Your task to perform on an android device: Search for the Best selling coffee table on Ikea Image 0: 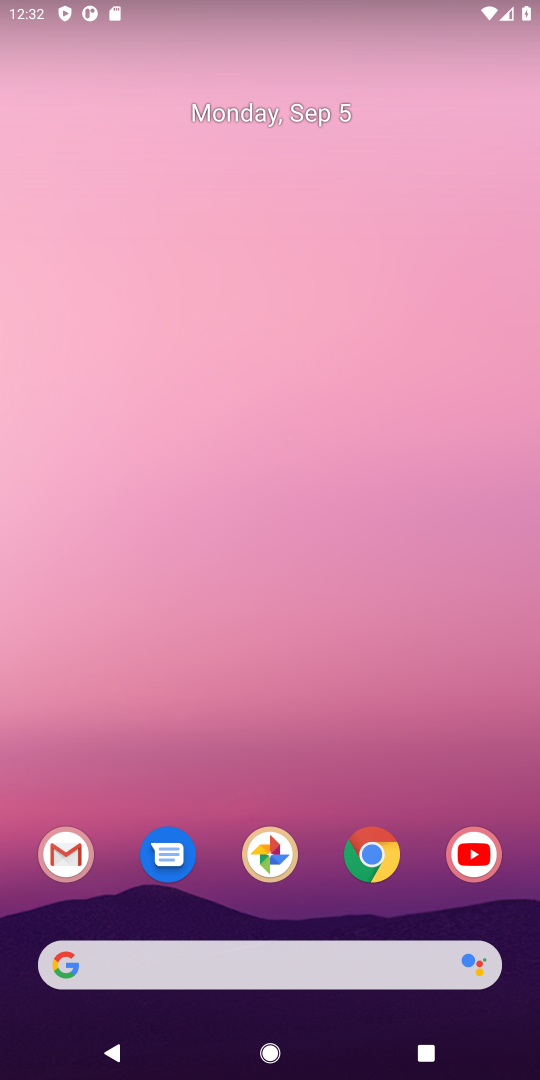
Step 0: click (367, 860)
Your task to perform on an android device: Search for the Best selling coffee table on Ikea Image 1: 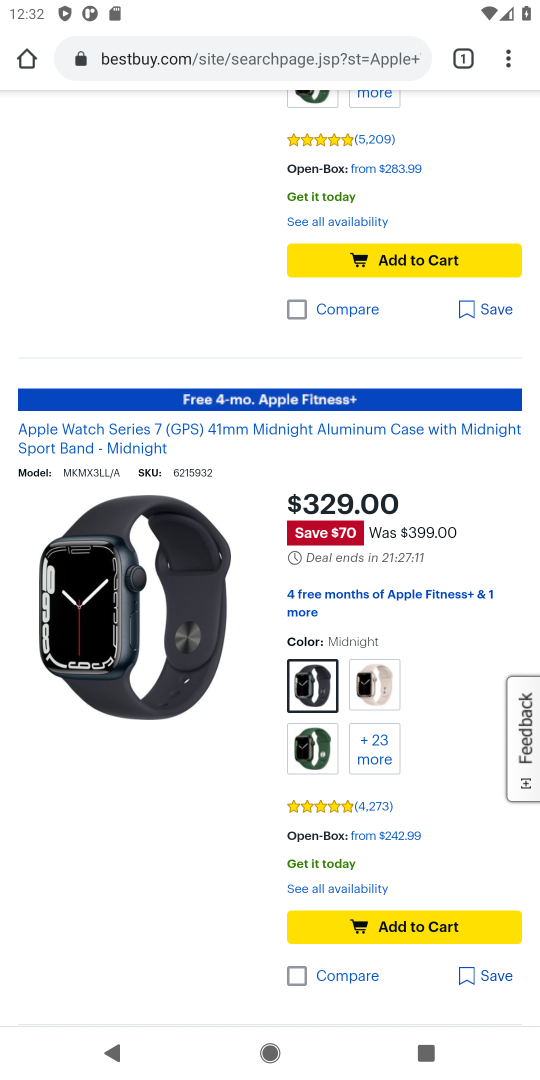
Step 1: click (351, 54)
Your task to perform on an android device: Search for the Best selling coffee table on Ikea Image 2: 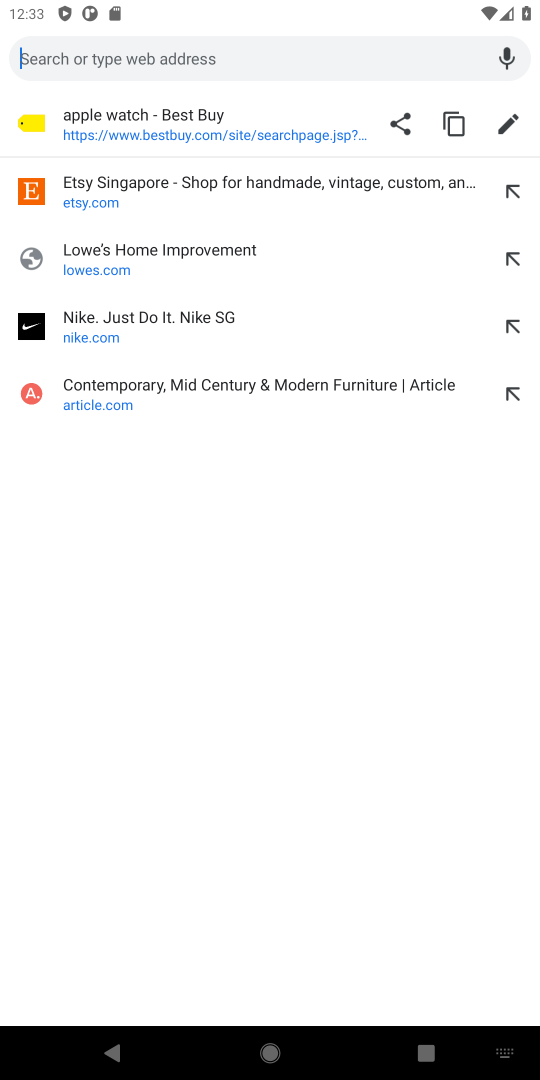
Step 2: type "Ikea"
Your task to perform on an android device: Search for the Best selling coffee table on Ikea Image 3: 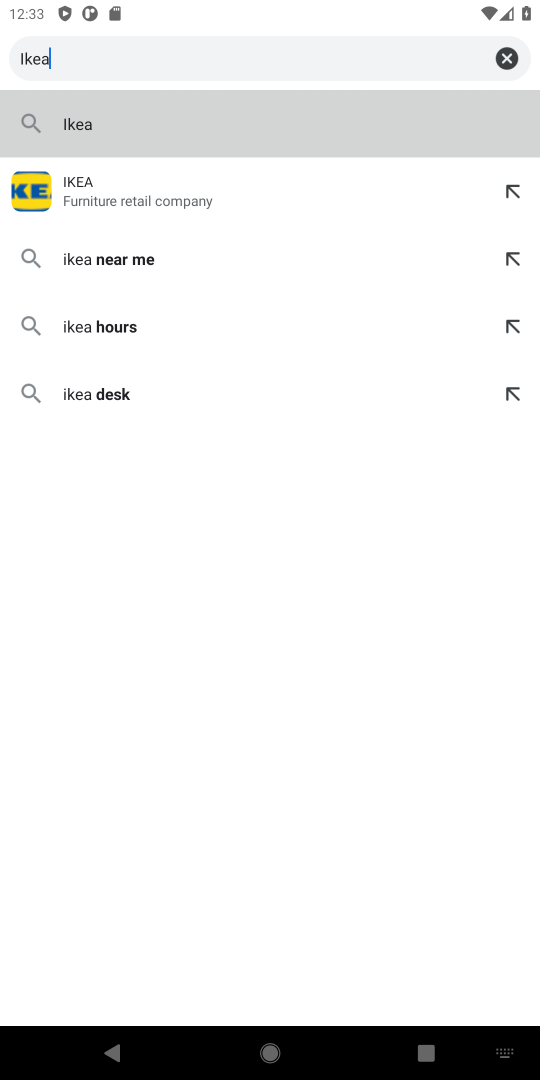
Step 3: press enter
Your task to perform on an android device: Search for the Best selling coffee table on Ikea Image 4: 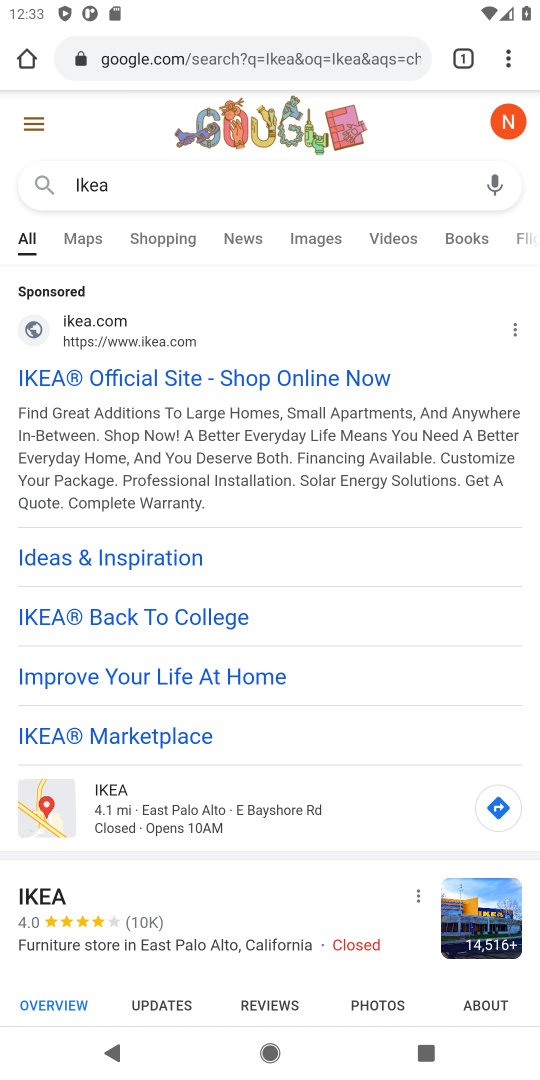
Step 4: click (248, 380)
Your task to perform on an android device: Search for the Best selling coffee table on Ikea Image 5: 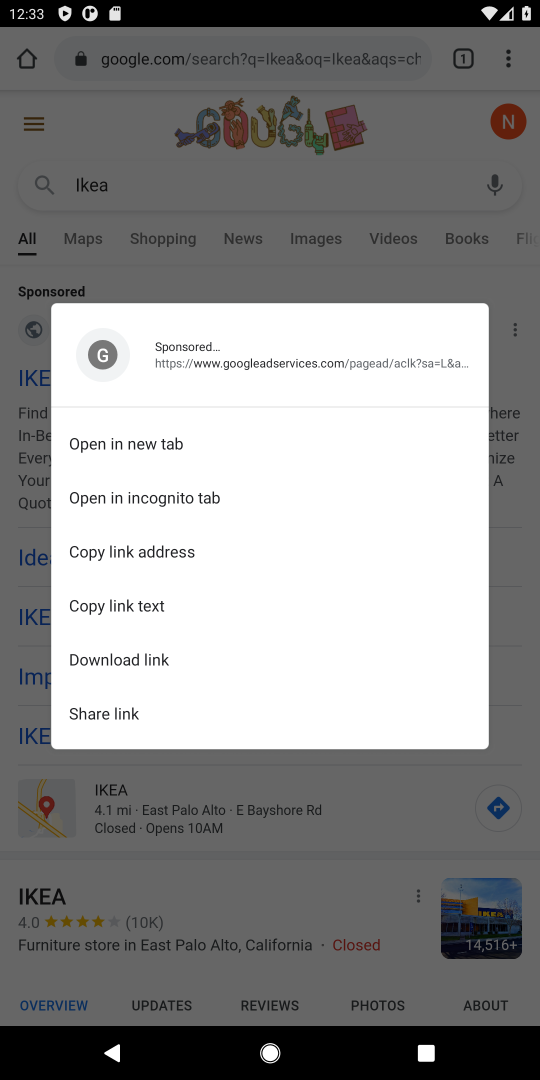
Step 5: click (525, 372)
Your task to perform on an android device: Search for the Best selling coffee table on Ikea Image 6: 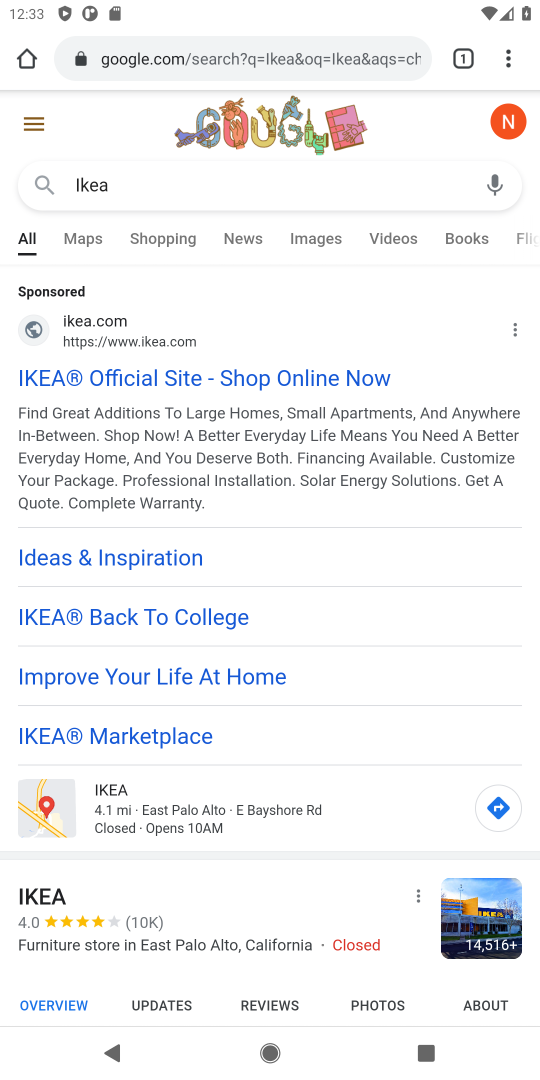
Step 6: click (126, 377)
Your task to perform on an android device: Search for the Best selling coffee table on Ikea Image 7: 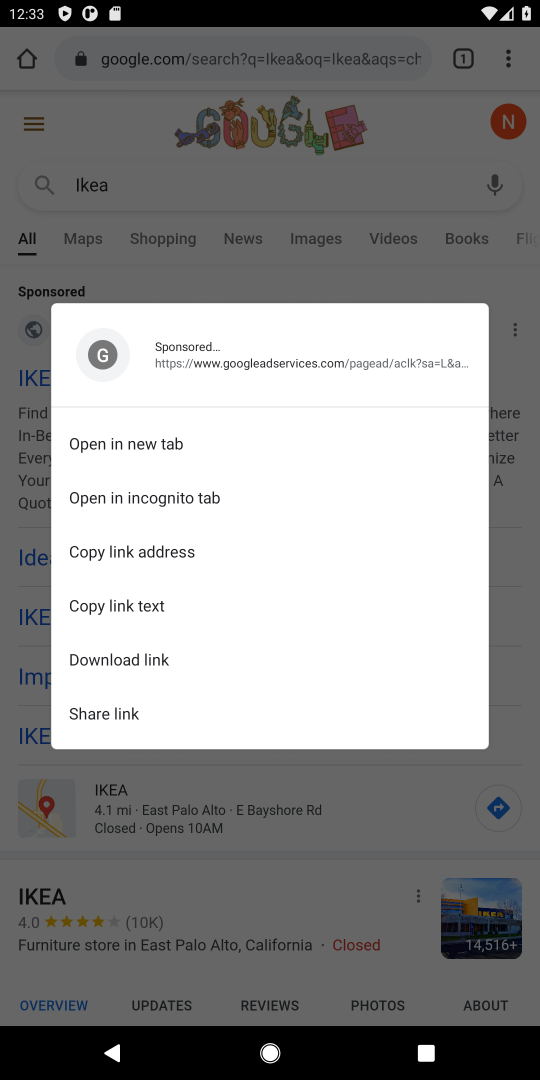
Step 7: click (520, 677)
Your task to perform on an android device: Search for the Best selling coffee table on Ikea Image 8: 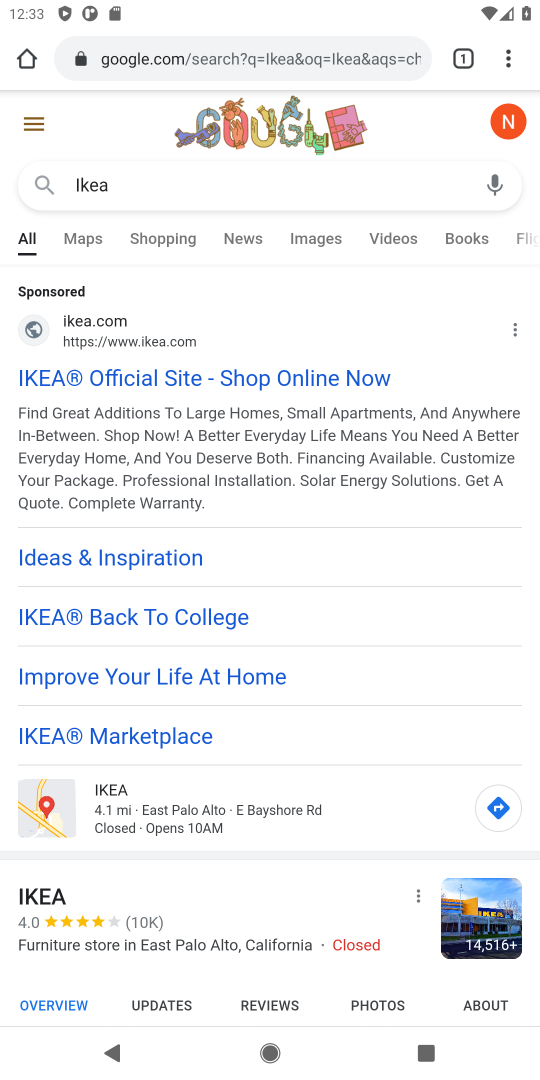
Step 8: click (13, 372)
Your task to perform on an android device: Search for the Best selling coffee table on Ikea Image 9: 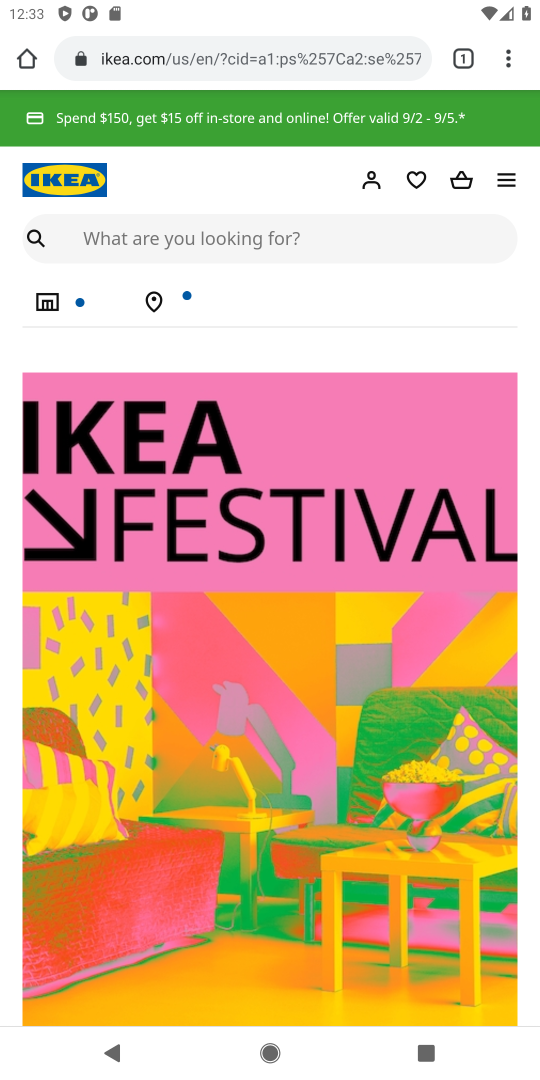
Step 9: click (245, 232)
Your task to perform on an android device: Search for the Best selling coffee table on Ikea Image 10: 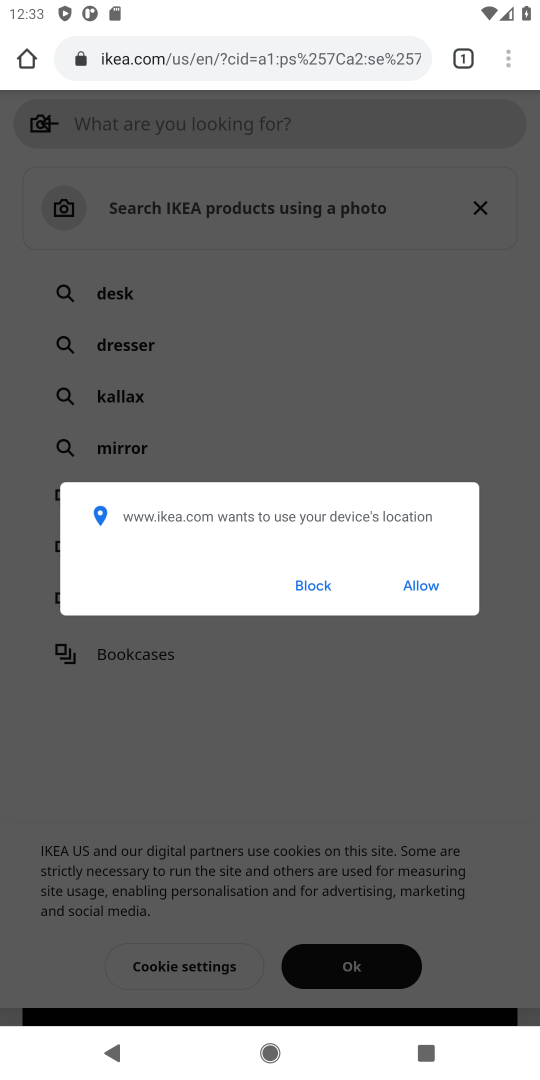
Step 10: click (319, 583)
Your task to perform on an android device: Search for the Best selling coffee table on Ikea Image 11: 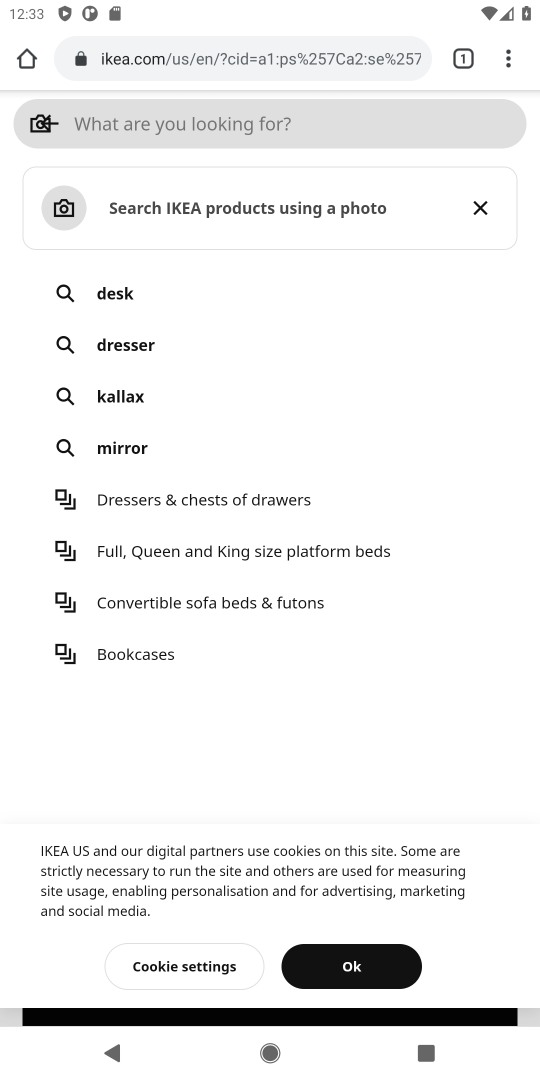
Step 11: type "coffee table"
Your task to perform on an android device: Search for the Best selling coffee table on Ikea Image 12: 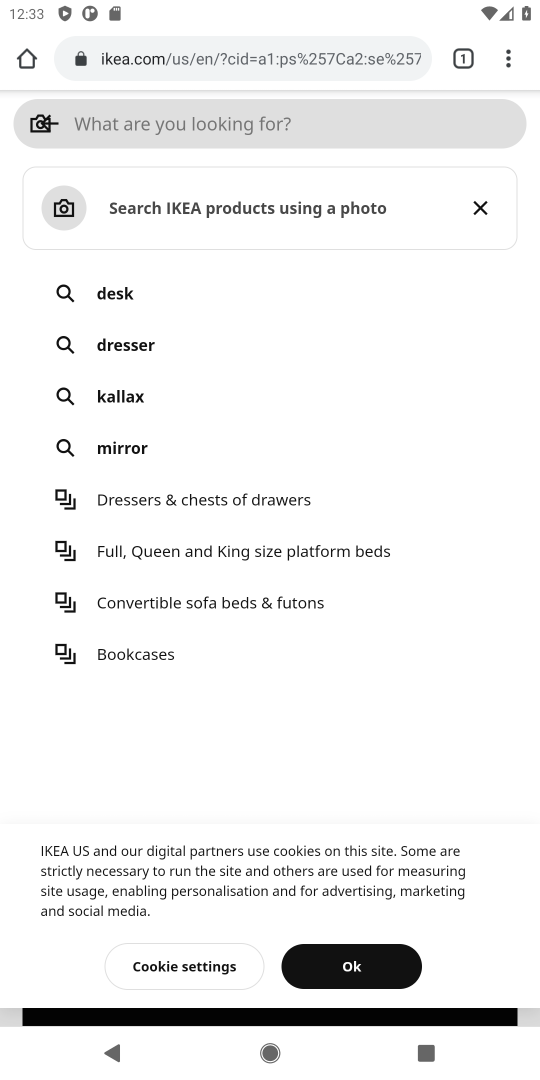
Step 12: press enter
Your task to perform on an android device: Search for the Best selling coffee table on Ikea Image 13: 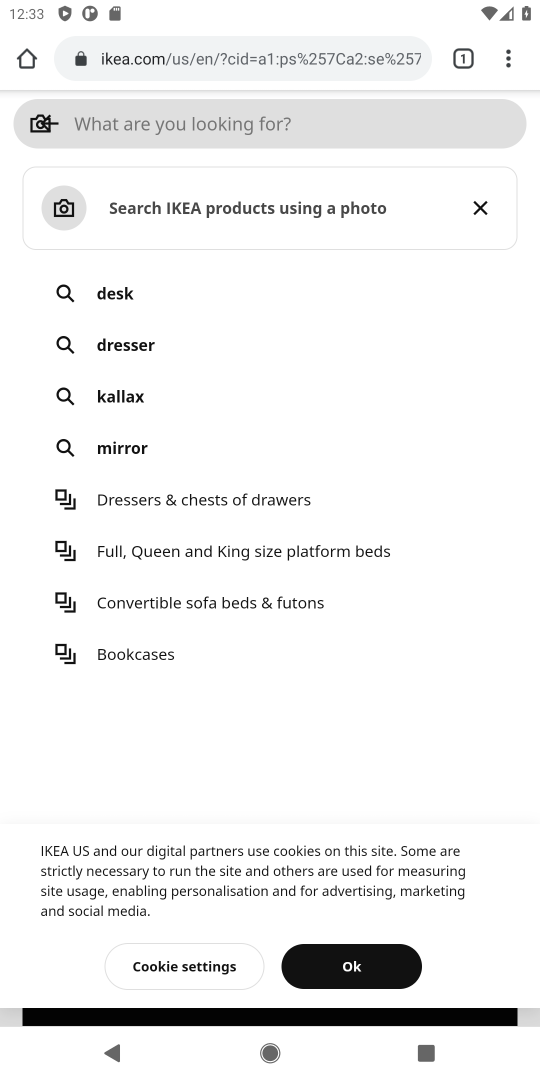
Step 13: click (91, 119)
Your task to perform on an android device: Search for the Best selling coffee table on Ikea Image 14: 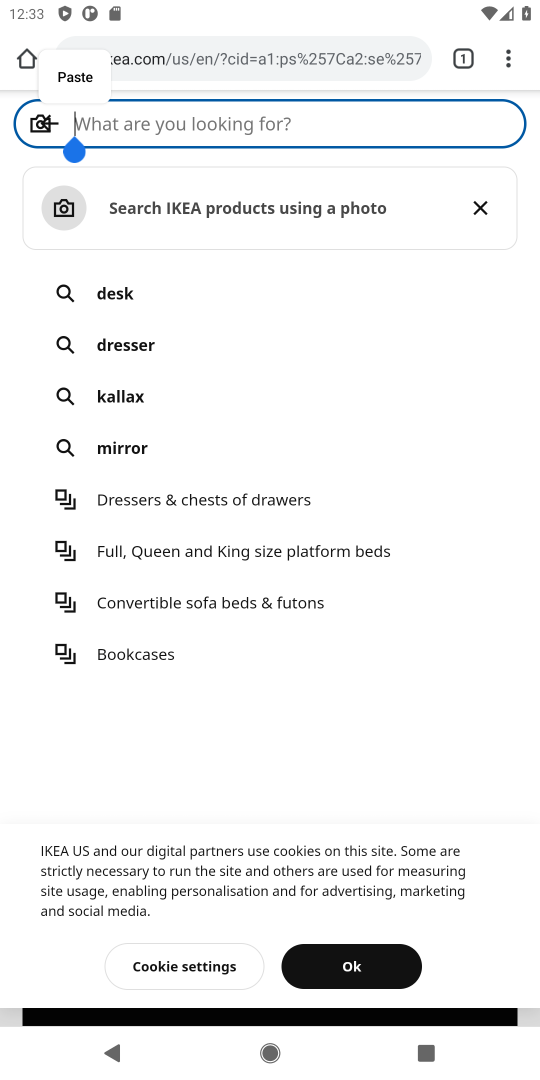
Step 14: type "coffee table"
Your task to perform on an android device: Search for the Best selling coffee table on Ikea Image 15: 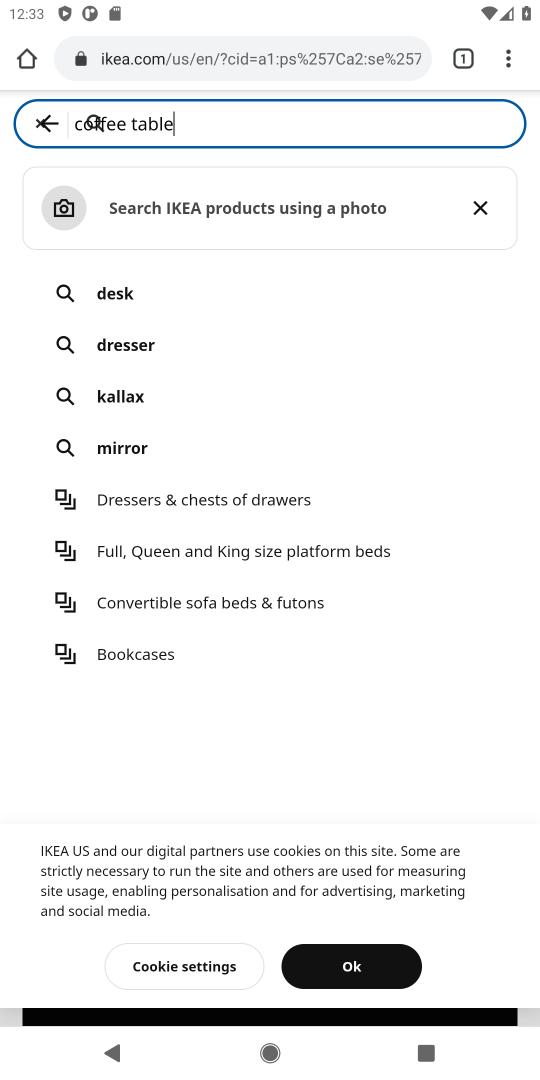
Step 15: press enter
Your task to perform on an android device: Search for the Best selling coffee table on Ikea Image 16: 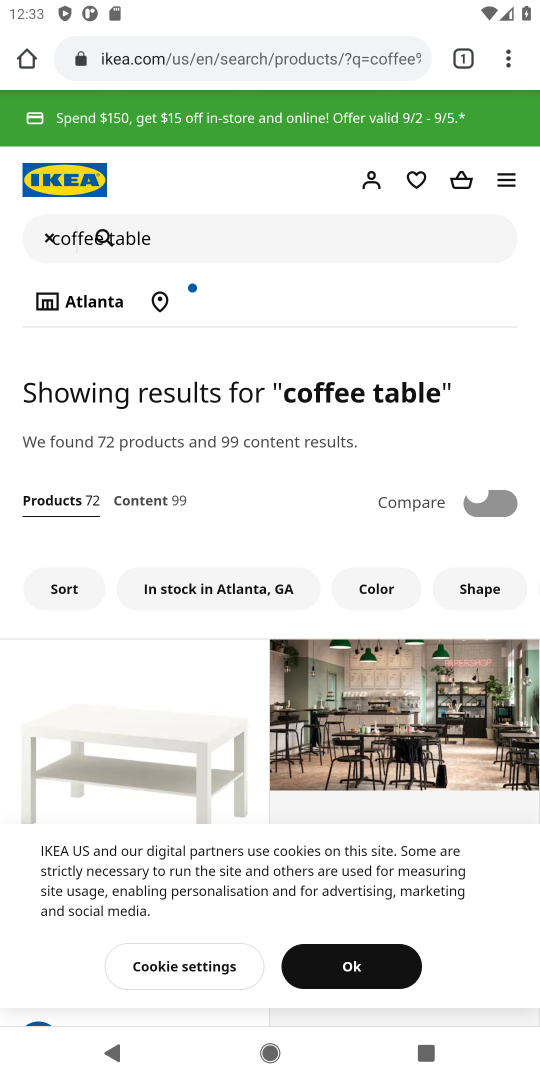
Step 16: task complete